Your task to perform on an android device: Open my contact list Image 0: 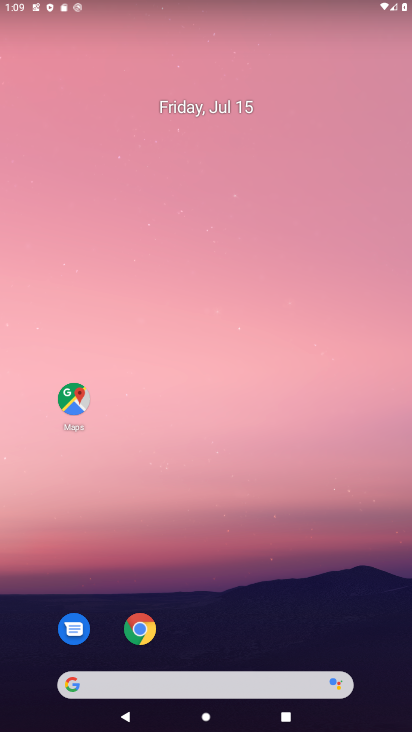
Step 0: press home button
Your task to perform on an android device: Open my contact list Image 1: 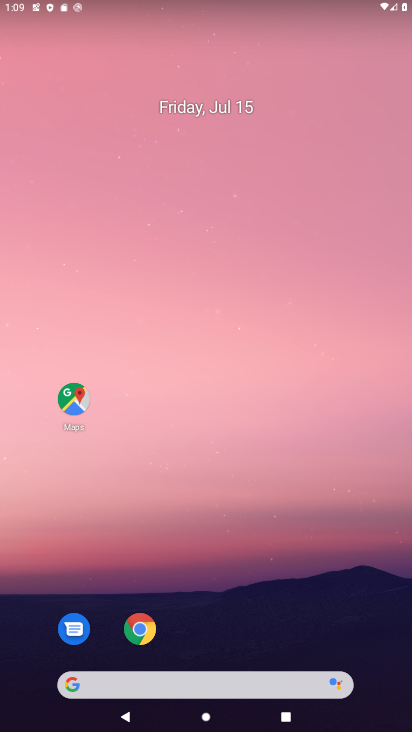
Step 1: drag from (256, 423) to (264, 21)
Your task to perform on an android device: Open my contact list Image 2: 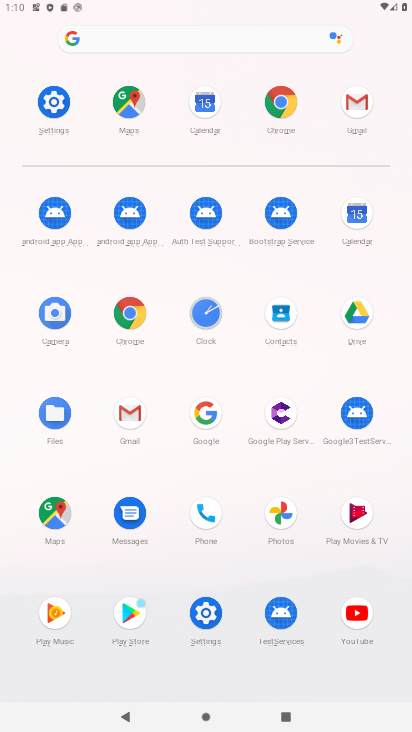
Step 2: click (283, 311)
Your task to perform on an android device: Open my contact list Image 3: 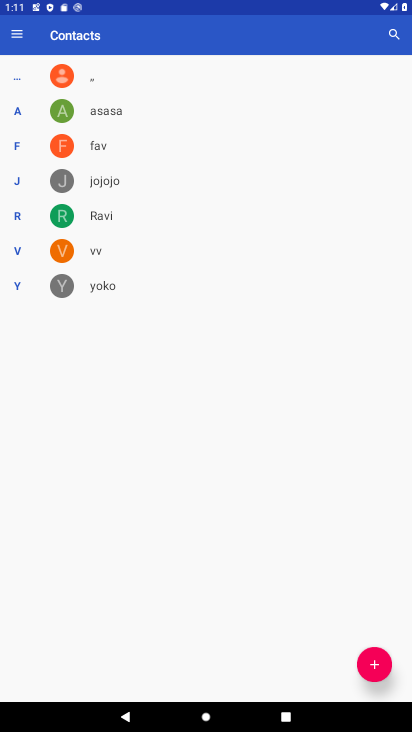
Step 3: task complete